Your task to perform on an android device: toggle wifi Image 0: 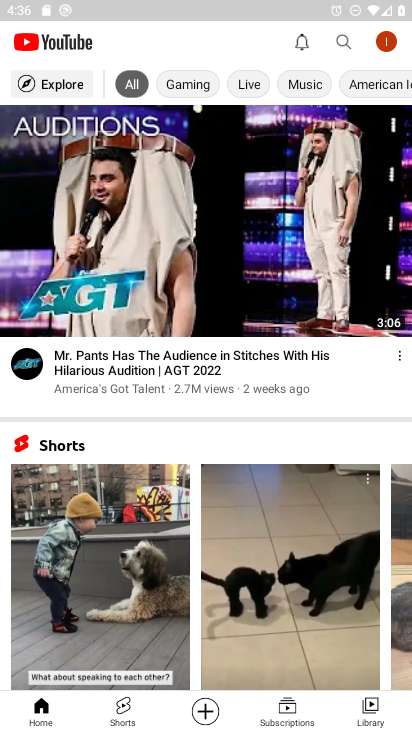
Step 0: press home button
Your task to perform on an android device: toggle wifi Image 1: 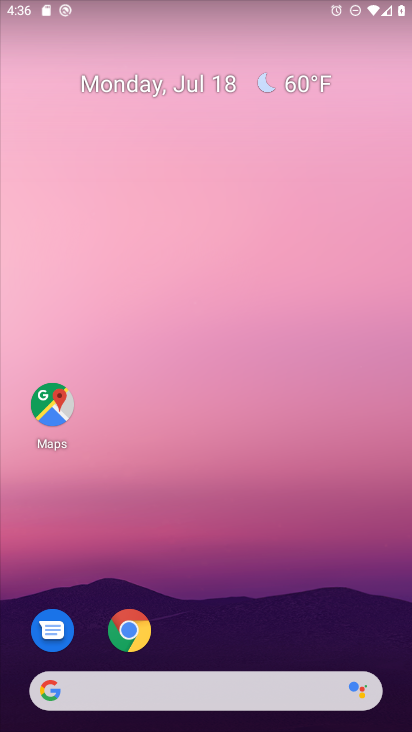
Step 1: drag from (248, 550) to (221, 237)
Your task to perform on an android device: toggle wifi Image 2: 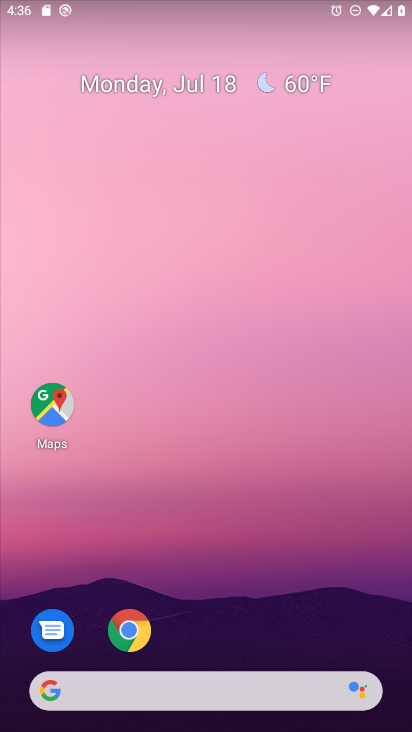
Step 2: drag from (198, 625) to (189, 92)
Your task to perform on an android device: toggle wifi Image 3: 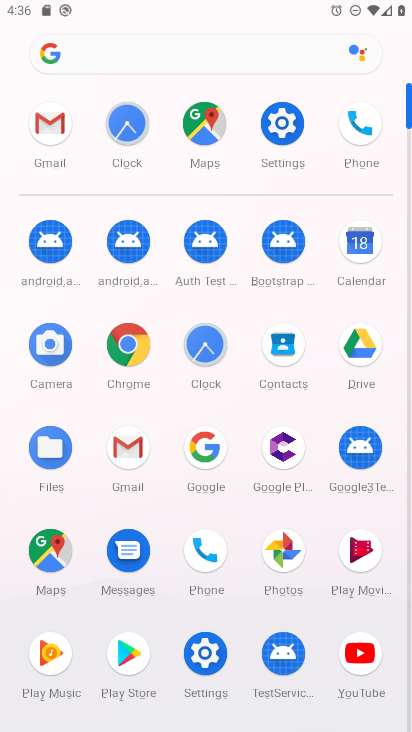
Step 3: click (276, 121)
Your task to perform on an android device: toggle wifi Image 4: 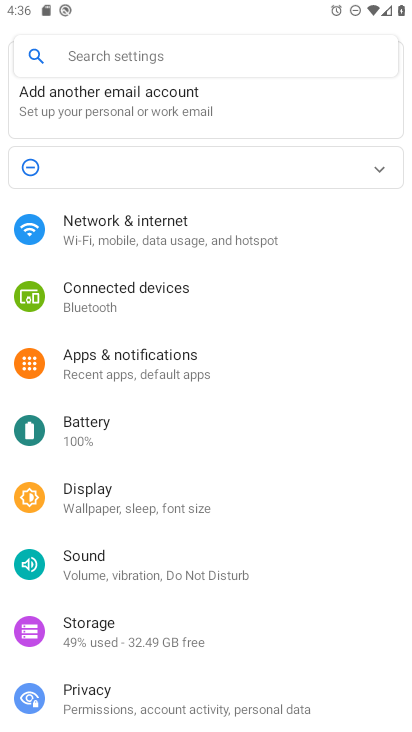
Step 4: click (144, 223)
Your task to perform on an android device: toggle wifi Image 5: 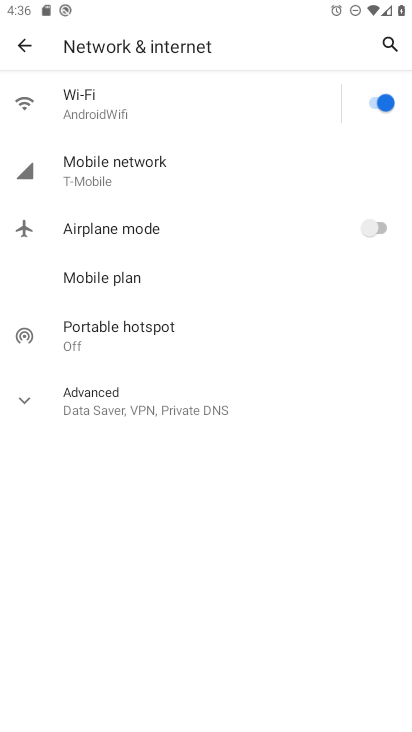
Step 5: click (374, 94)
Your task to perform on an android device: toggle wifi Image 6: 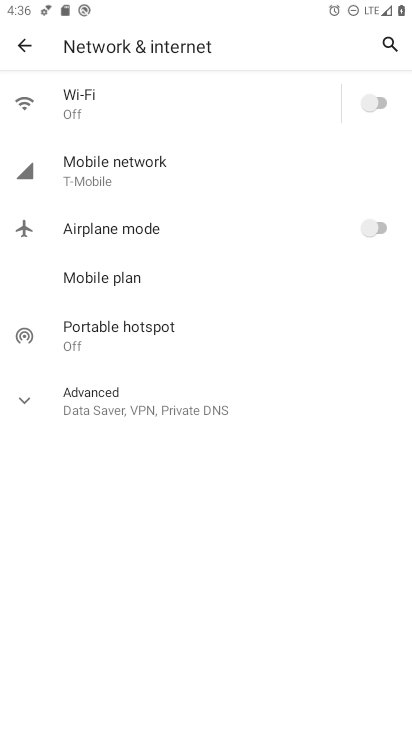
Step 6: task complete